Your task to perform on an android device: add a label to a message in the gmail app Image 0: 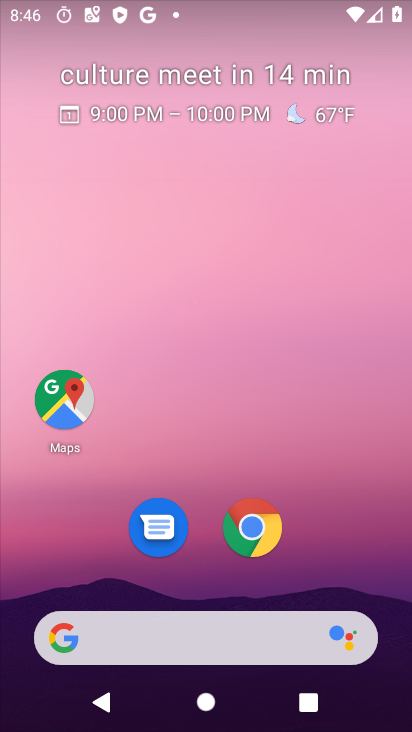
Step 0: drag from (236, 727) to (224, 87)
Your task to perform on an android device: add a label to a message in the gmail app Image 1: 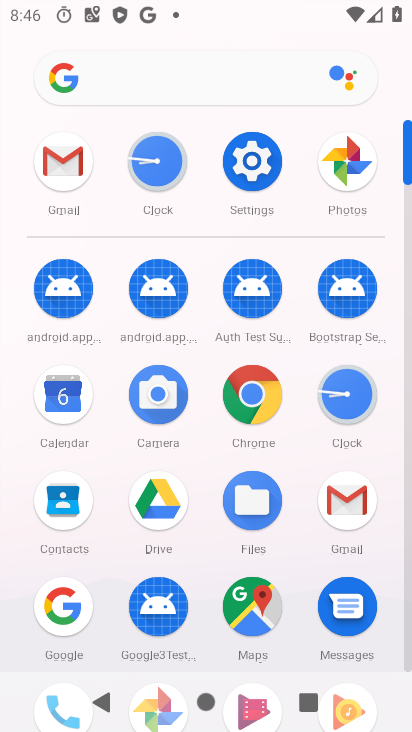
Step 1: click (347, 508)
Your task to perform on an android device: add a label to a message in the gmail app Image 2: 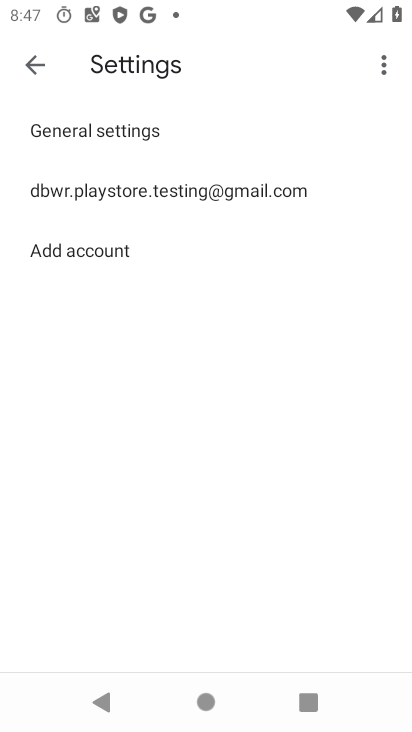
Step 2: click (34, 63)
Your task to perform on an android device: add a label to a message in the gmail app Image 3: 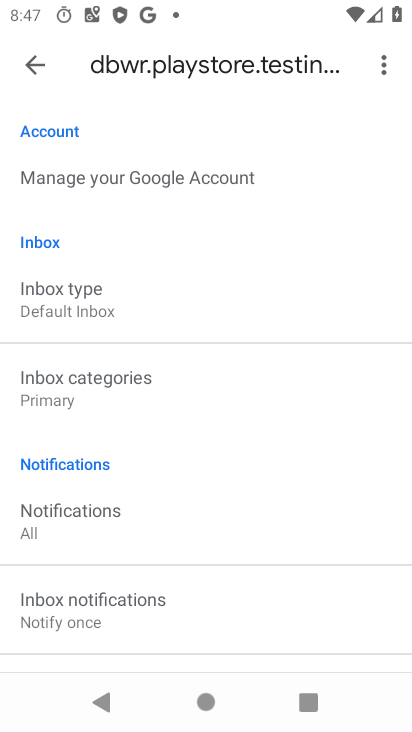
Step 3: drag from (115, 153) to (142, 541)
Your task to perform on an android device: add a label to a message in the gmail app Image 4: 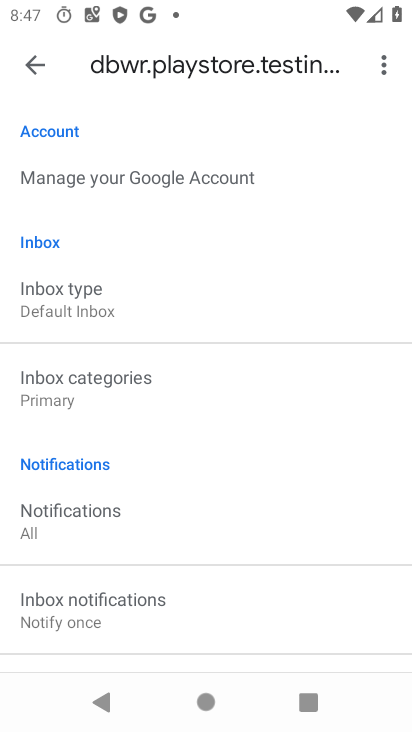
Step 4: click (38, 66)
Your task to perform on an android device: add a label to a message in the gmail app Image 5: 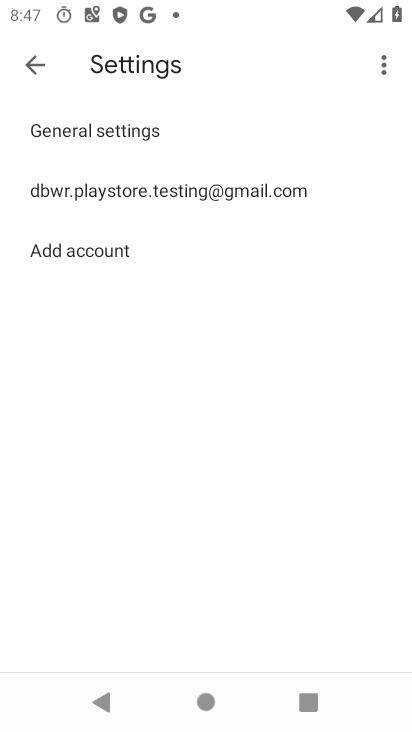
Step 5: click (32, 60)
Your task to perform on an android device: add a label to a message in the gmail app Image 6: 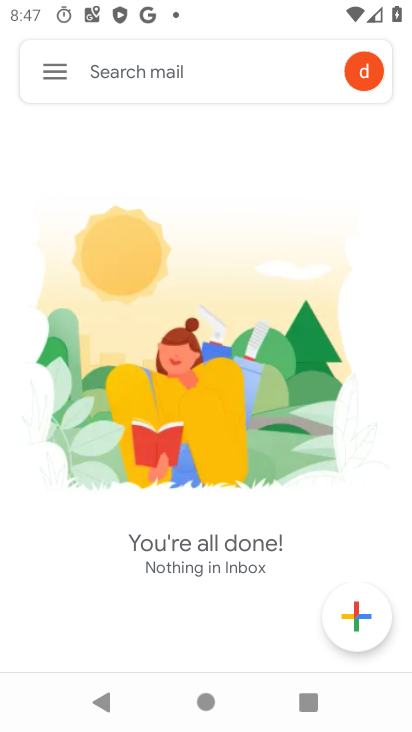
Step 6: task complete